Your task to perform on an android device: turn off javascript in the chrome app Image 0: 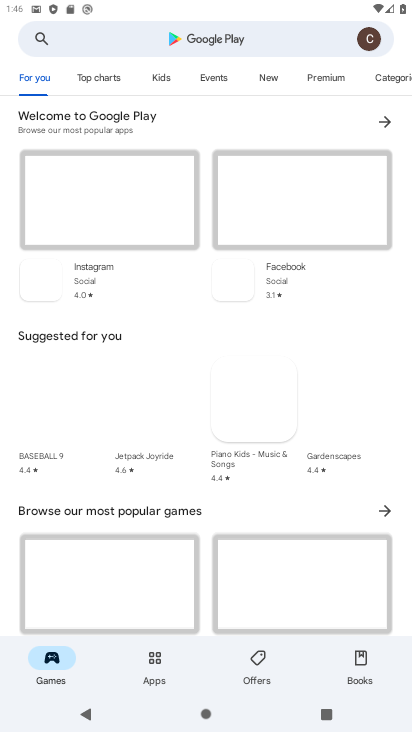
Step 0: press home button
Your task to perform on an android device: turn off javascript in the chrome app Image 1: 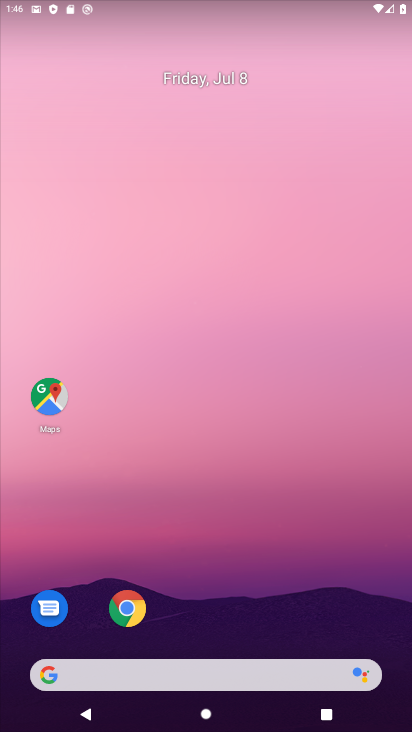
Step 1: click (121, 611)
Your task to perform on an android device: turn off javascript in the chrome app Image 2: 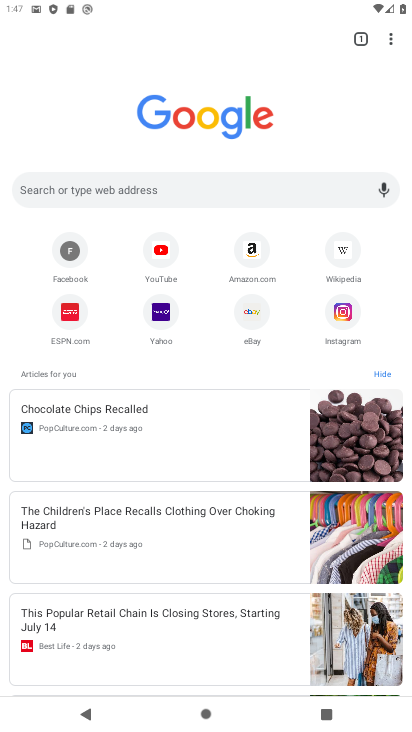
Step 2: click (393, 35)
Your task to perform on an android device: turn off javascript in the chrome app Image 3: 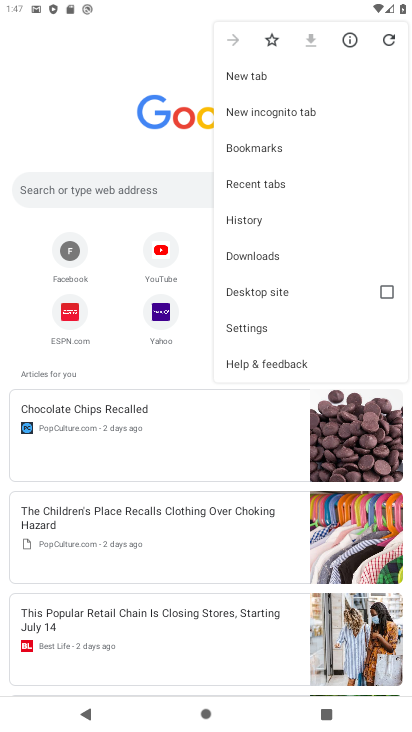
Step 3: click (252, 327)
Your task to perform on an android device: turn off javascript in the chrome app Image 4: 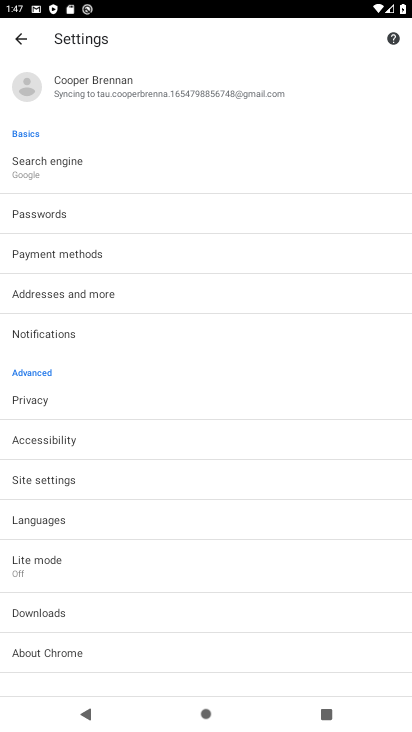
Step 4: click (52, 479)
Your task to perform on an android device: turn off javascript in the chrome app Image 5: 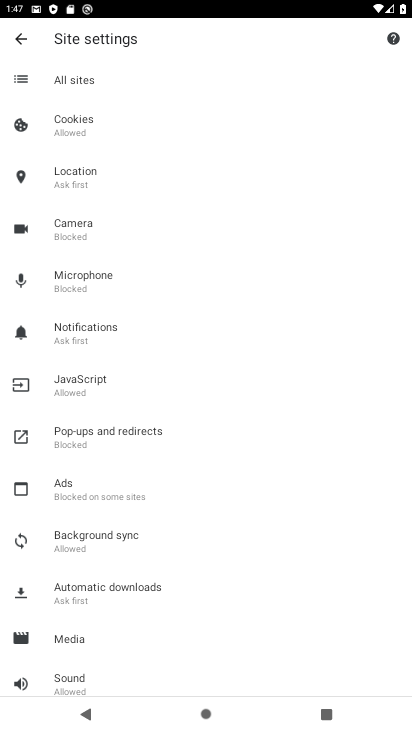
Step 5: click (91, 372)
Your task to perform on an android device: turn off javascript in the chrome app Image 6: 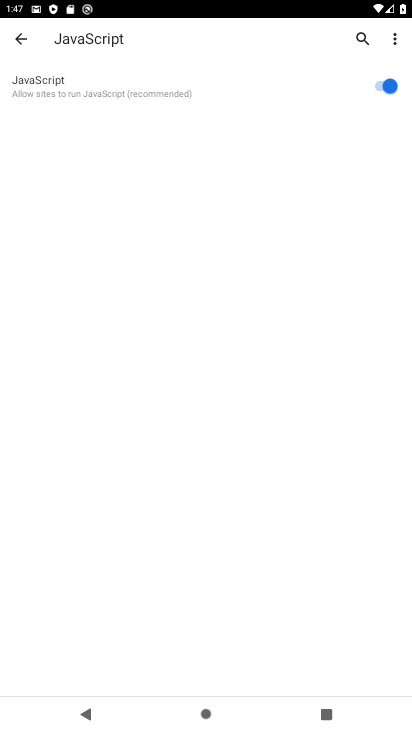
Step 6: click (378, 90)
Your task to perform on an android device: turn off javascript in the chrome app Image 7: 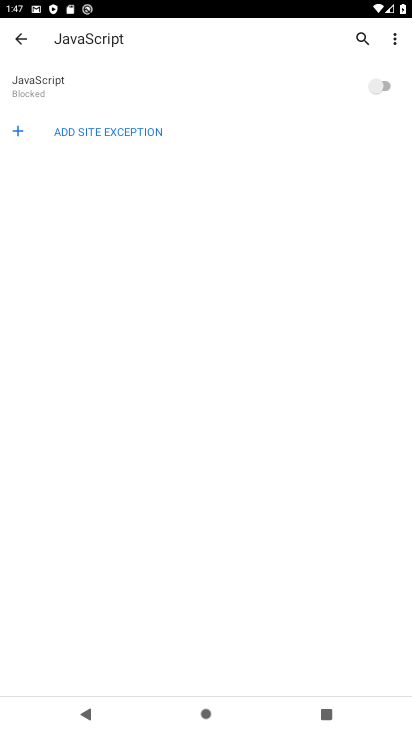
Step 7: task complete